Your task to perform on an android device: install app "Adobe Express: Graphic Design" Image 0: 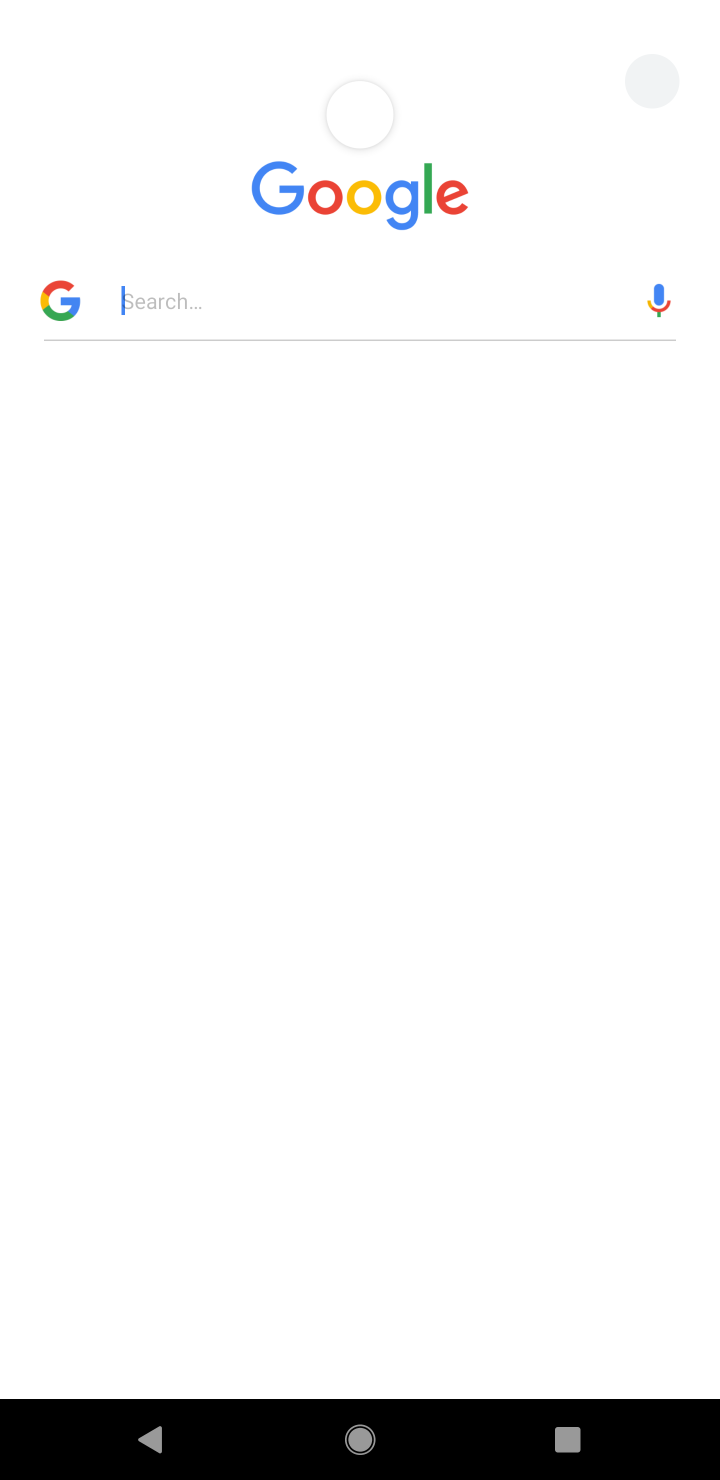
Step 0: press home button
Your task to perform on an android device: install app "Adobe Express: Graphic Design" Image 1: 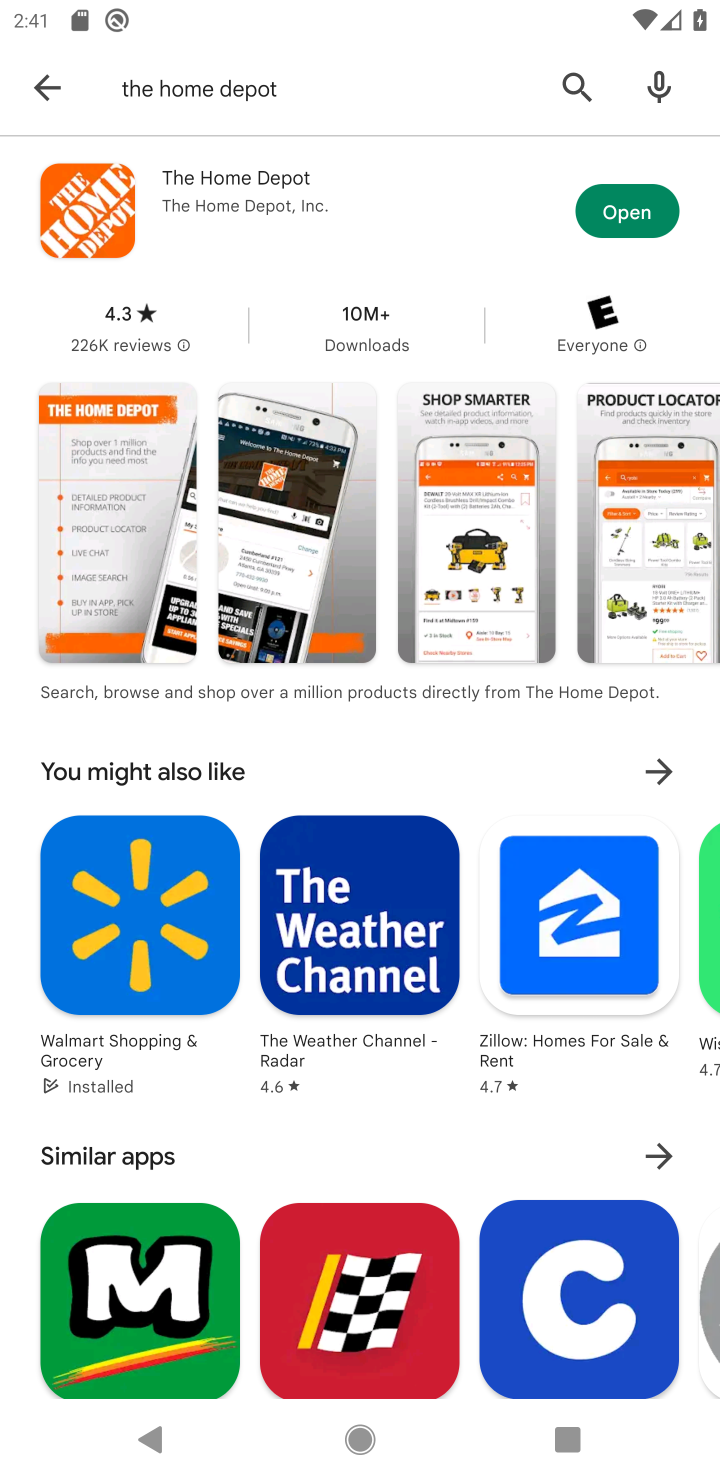
Step 1: press home button
Your task to perform on an android device: install app "Adobe Express: Graphic Design" Image 2: 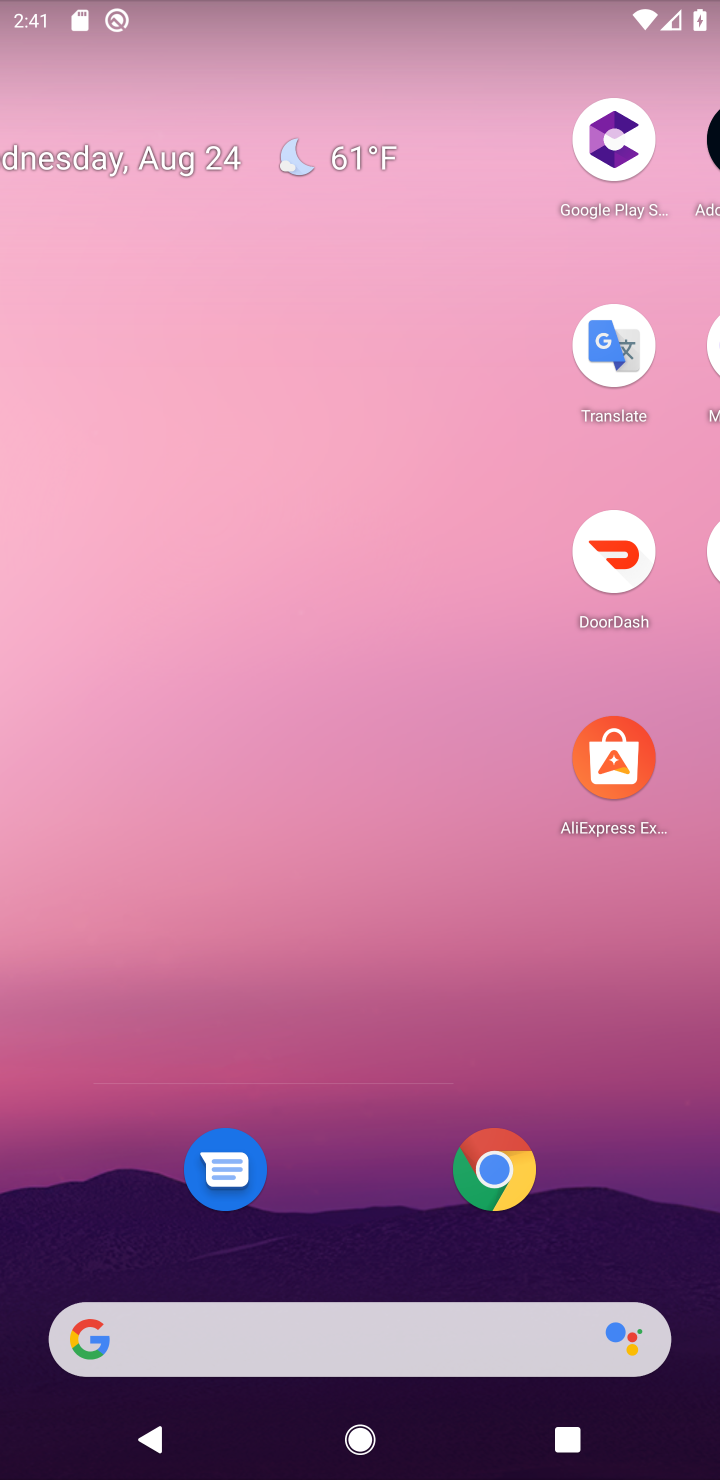
Step 2: press back button
Your task to perform on an android device: install app "Adobe Express: Graphic Design" Image 3: 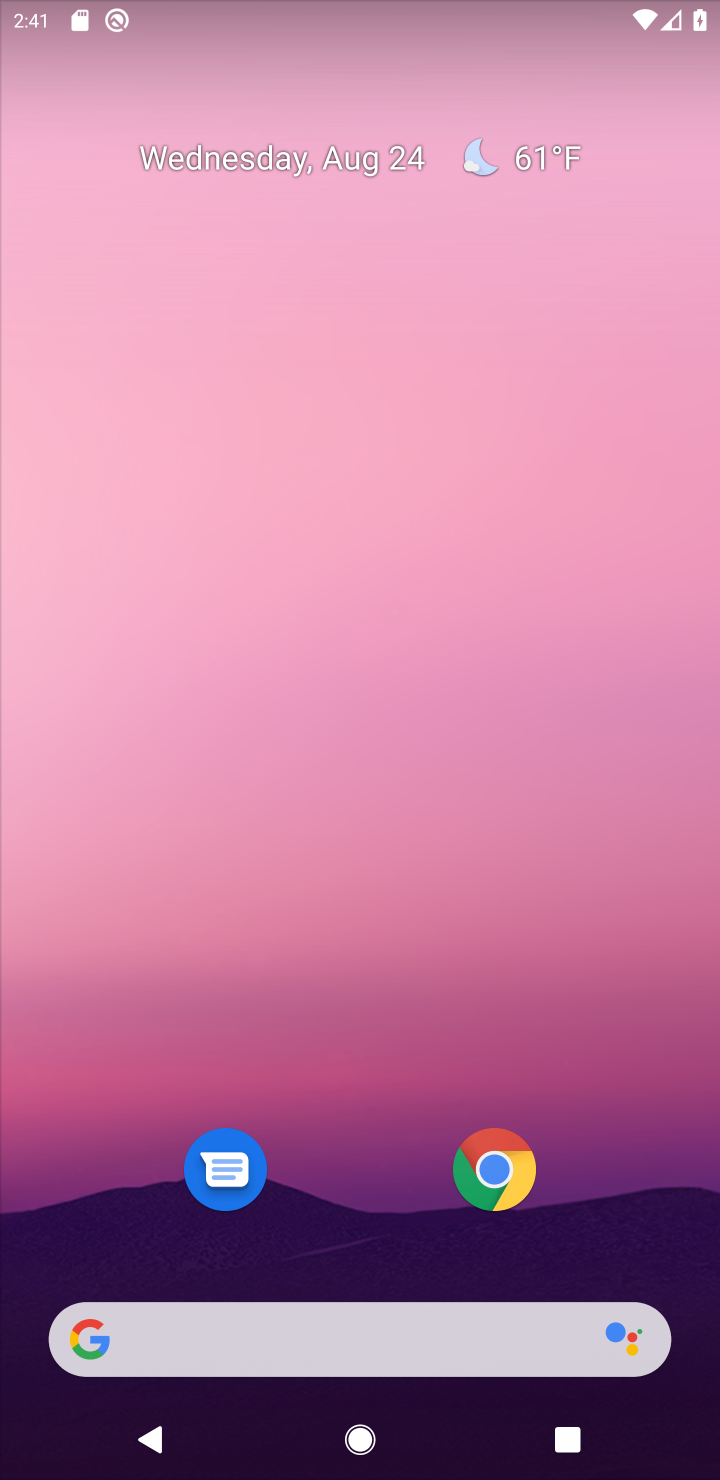
Step 3: drag from (474, 1286) to (308, 579)
Your task to perform on an android device: install app "Adobe Express: Graphic Design" Image 4: 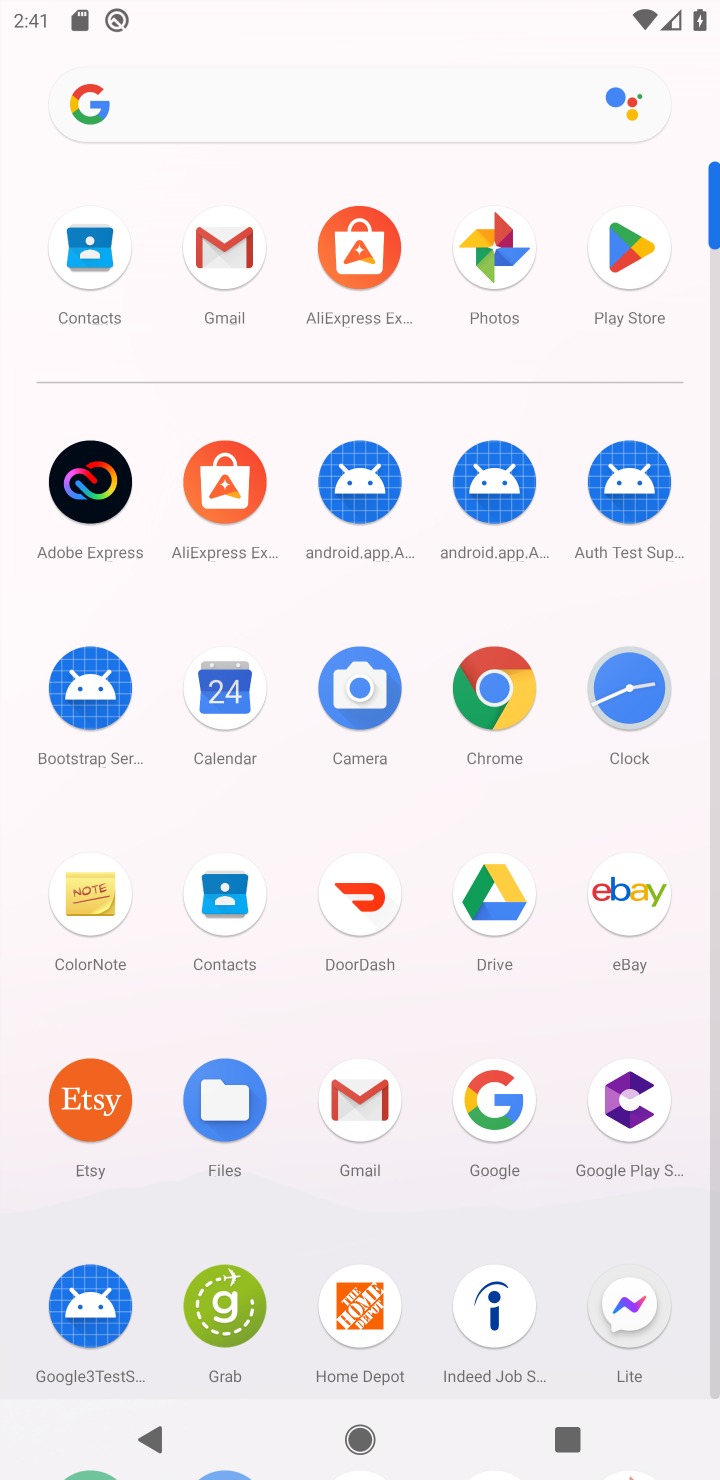
Step 4: click (635, 223)
Your task to perform on an android device: install app "Adobe Express: Graphic Design" Image 5: 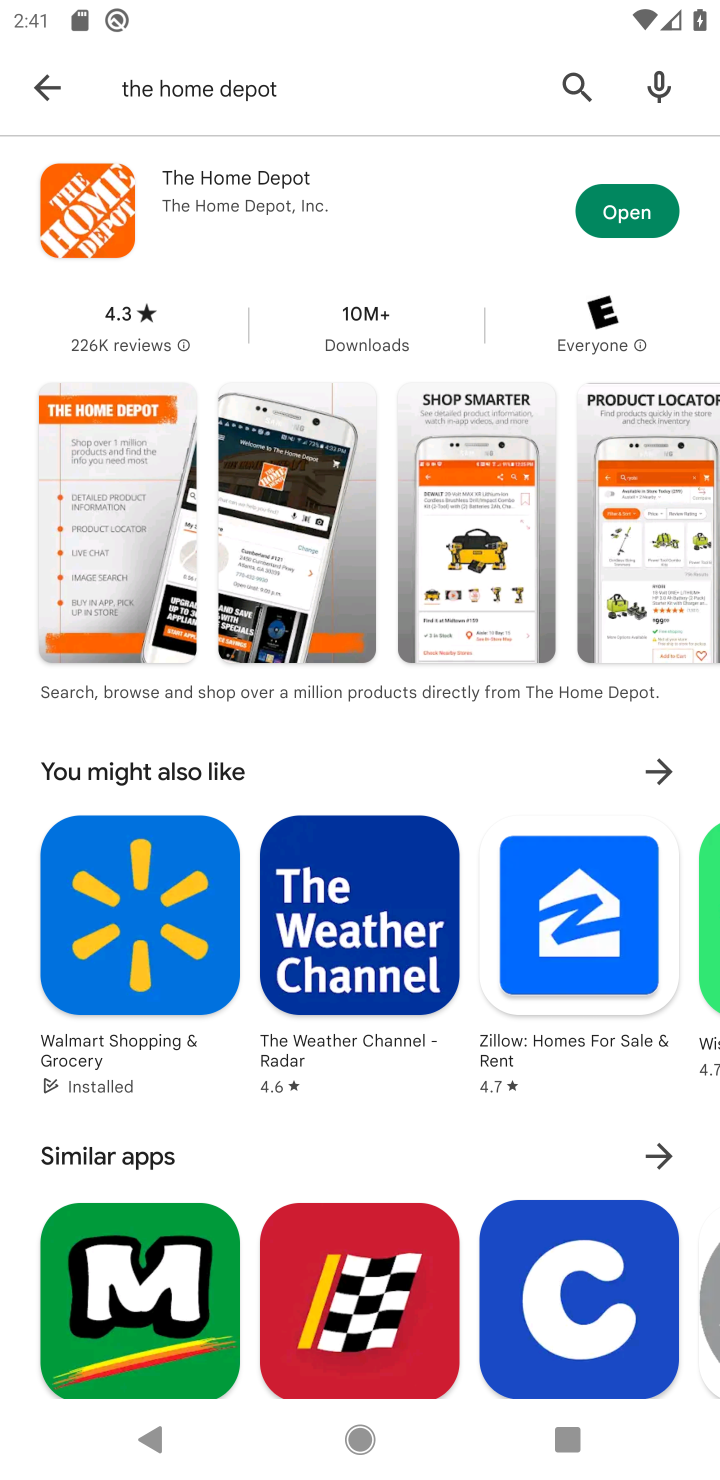
Step 5: click (51, 77)
Your task to perform on an android device: install app "Adobe Express: Graphic Design" Image 6: 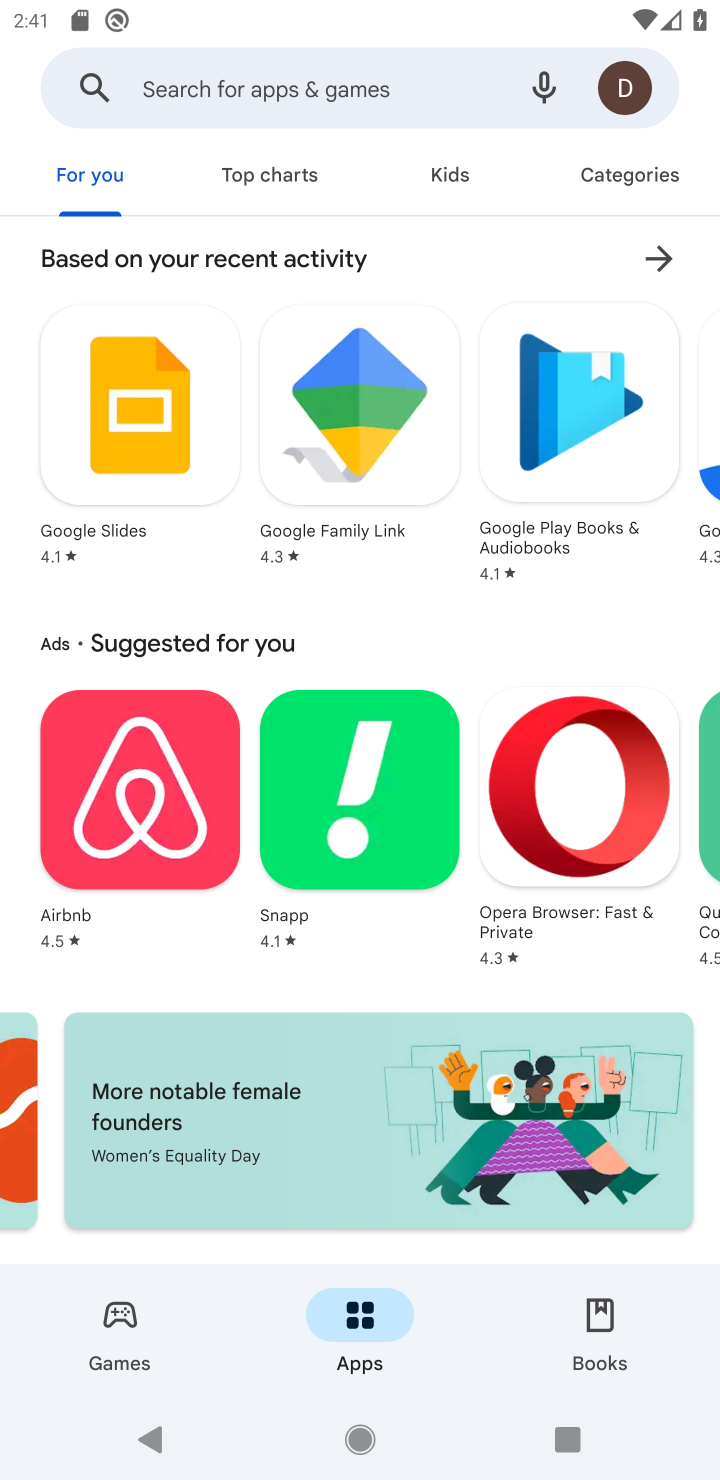
Step 6: click (198, 97)
Your task to perform on an android device: install app "Adobe Express: Graphic Design" Image 7: 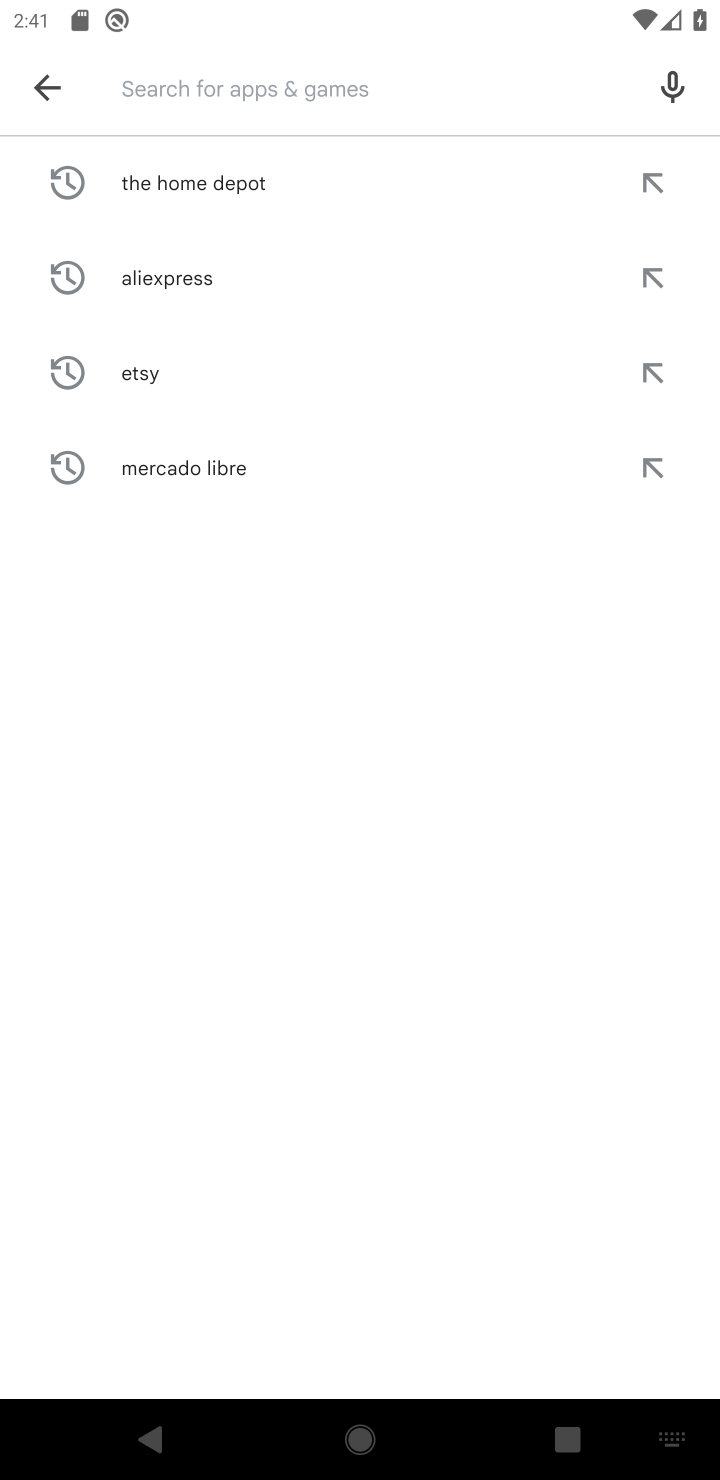
Step 7: type "Adobe Express: Graphic Design"
Your task to perform on an android device: install app "Adobe Express: Graphic Design" Image 8: 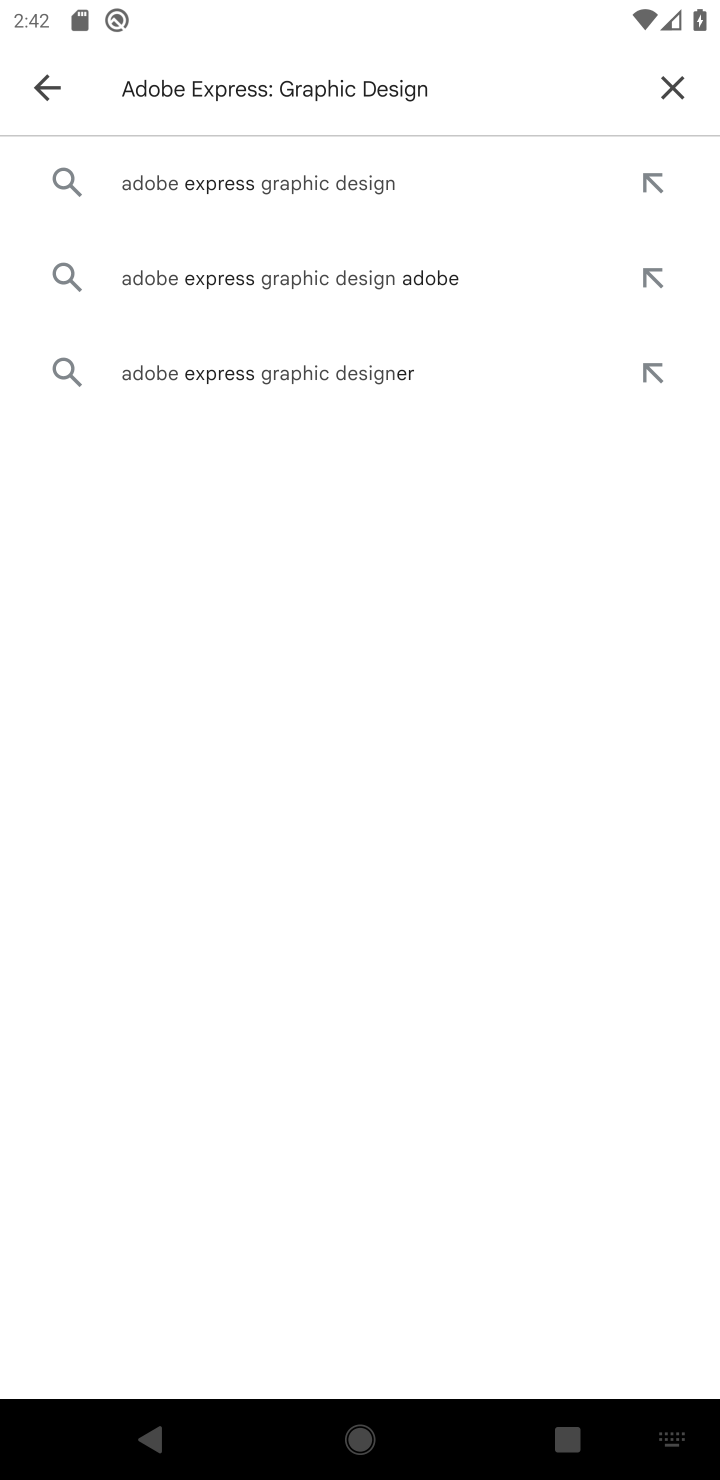
Step 8: click (193, 181)
Your task to perform on an android device: install app "Adobe Express: Graphic Design" Image 9: 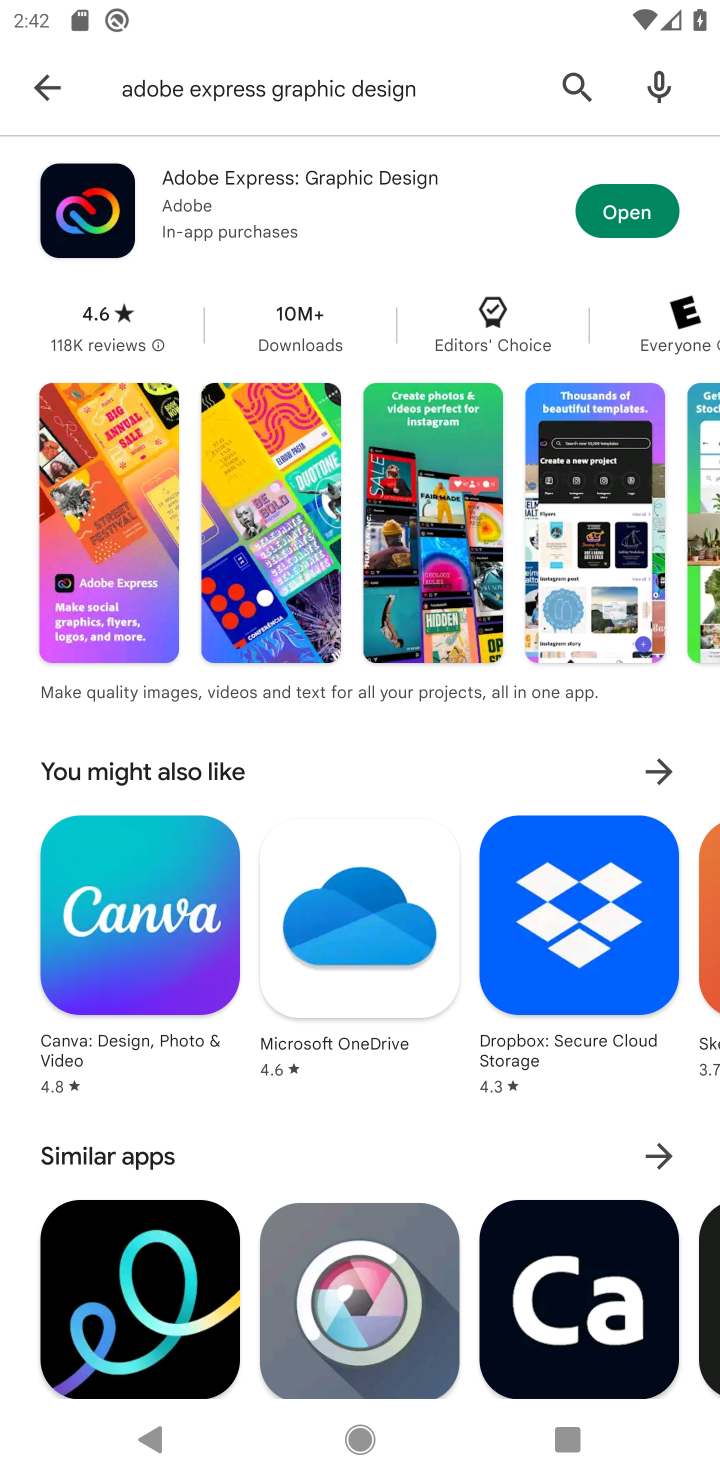
Step 9: click (444, 200)
Your task to perform on an android device: install app "Adobe Express: Graphic Design" Image 10: 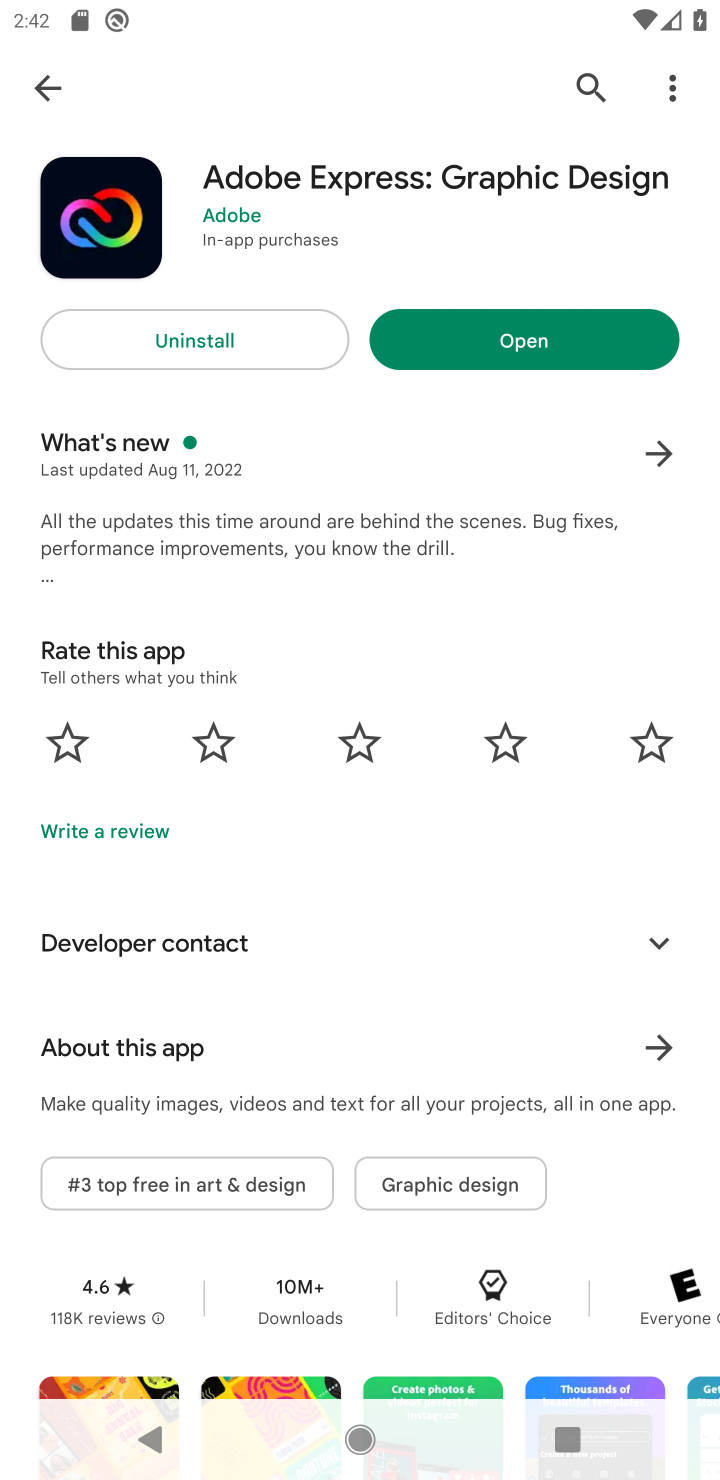
Step 10: task complete